Your task to perform on an android device: Do I have any events tomorrow? Image 0: 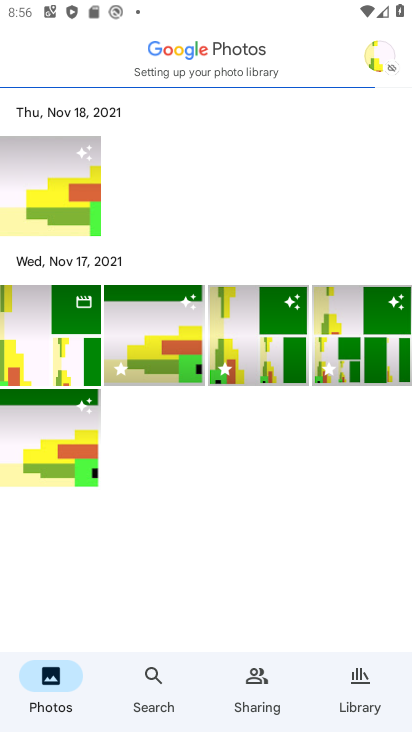
Step 0: press back button
Your task to perform on an android device: Do I have any events tomorrow? Image 1: 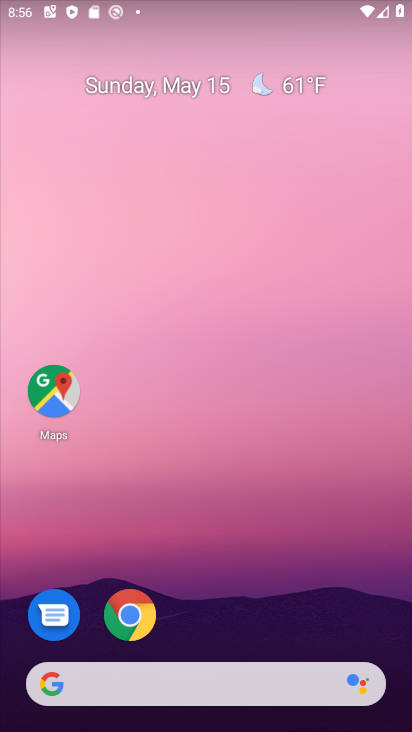
Step 1: drag from (253, 529) to (195, 3)
Your task to perform on an android device: Do I have any events tomorrow? Image 2: 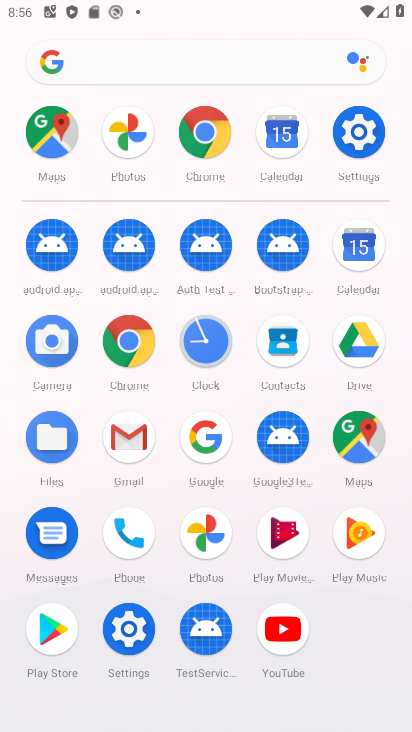
Step 2: drag from (4, 538) to (0, 274)
Your task to perform on an android device: Do I have any events tomorrow? Image 3: 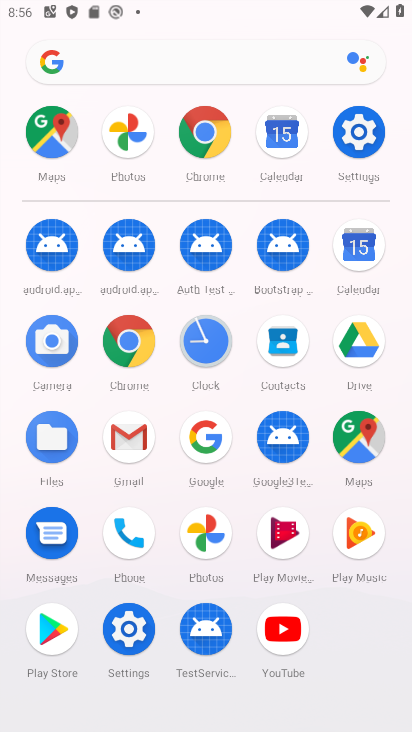
Step 3: click (360, 240)
Your task to perform on an android device: Do I have any events tomorrow? Image 4: 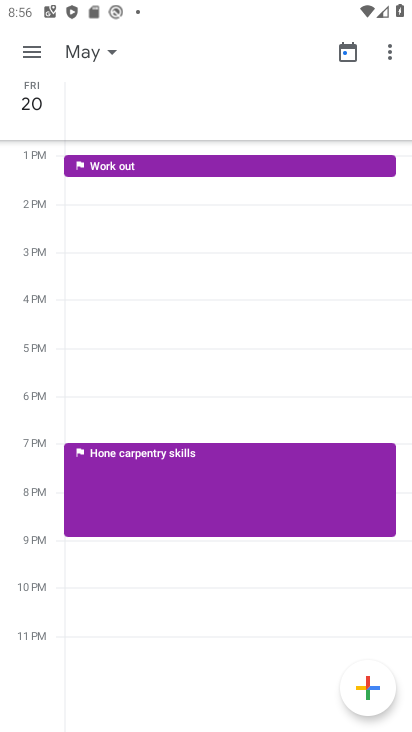
Step 4: press back button
Your task to perform on an android device: Do I have any events tomorrow? Image 5: 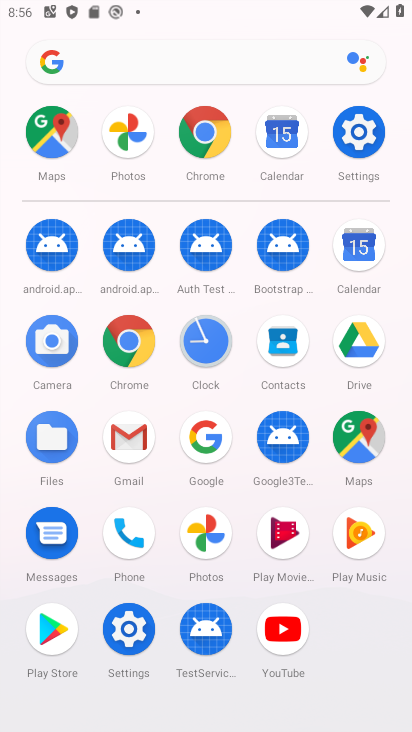
Step 5: click (359, 243)
Your task to perform on an android device: Do I have any events tomorrow? Image 6: 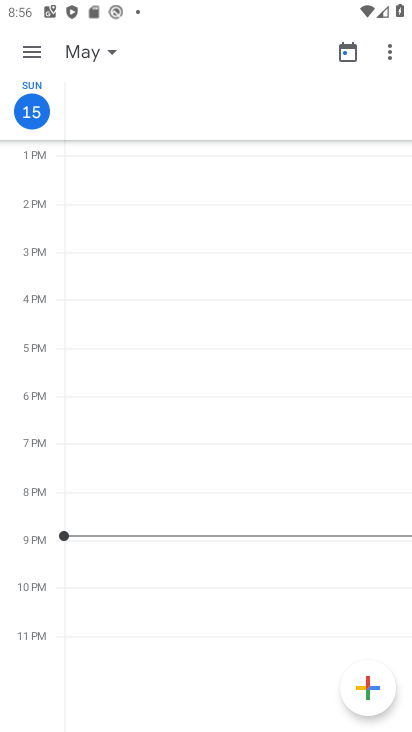
Step 6: task complete